Your task to perform on an android device: refresh tabs in the chrome app Image 0: 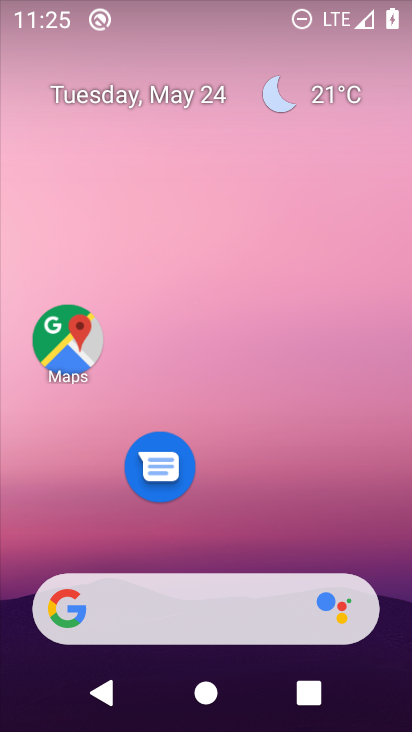
Step 0: drag from (242, 525) to (316, 166)
Your task to perform on an android device: refresh tabs in the chrome app Image 1: 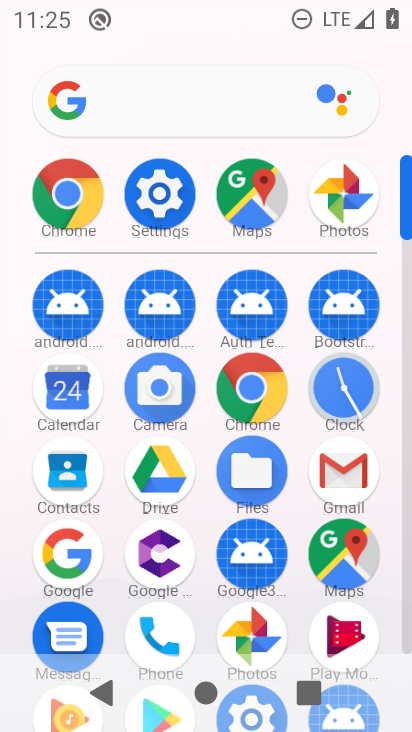
Step 1: click (248, 392)
Your task to perform on an android device: refresh tabs in the chrome app Image 2: 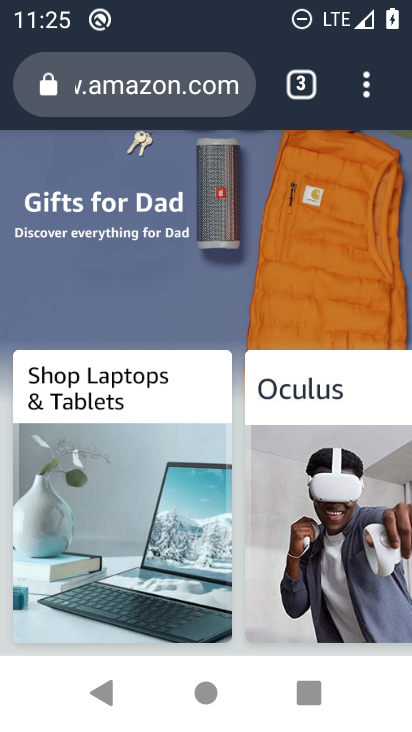
Step 2: drag from (199, 612) to (277, 275)
Your task to perform on an android device: refresh tabs in the chrome app Image 3: 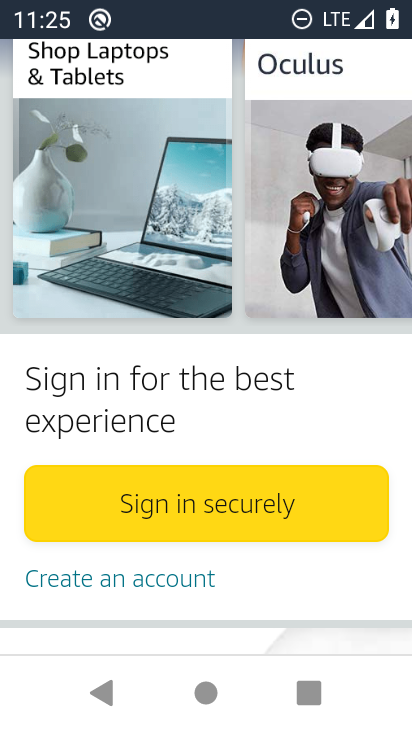
Step 3: drag from (362, 107) to (373, 579)
Your task to perform on an android device: refresh tabs in the chrome app Image 4: 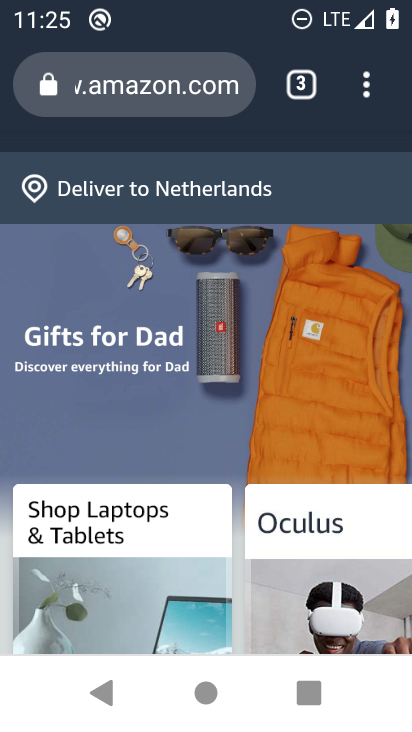
Step 4: click (366, 107)
Your task to perform on an android device: refresh tabs in the chrome app Image 5: 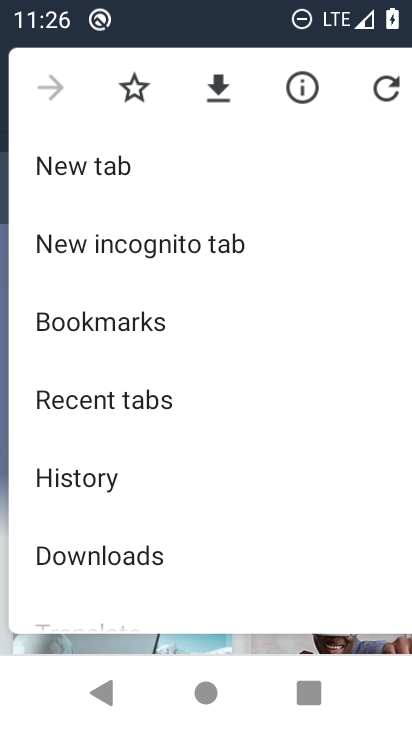
Step 5: drag from (110, 570) to (274, 83)
Your task to perform on an android device: refresh tabs in the chrome app Image 6: 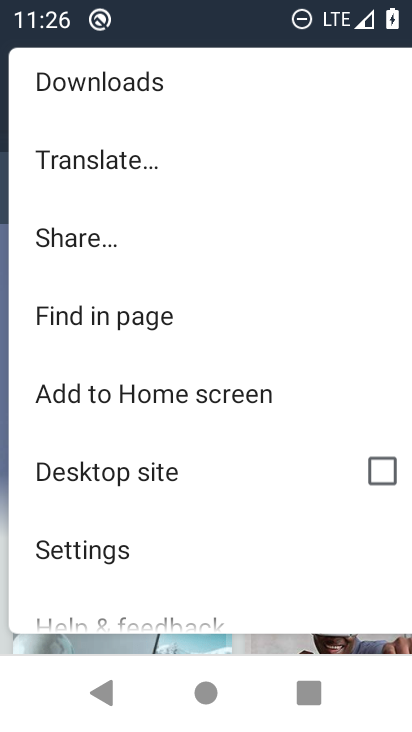
Step 6: click (96, 537)
Your task to perform on an android device: refresh tabs in the chrome app Image 7: 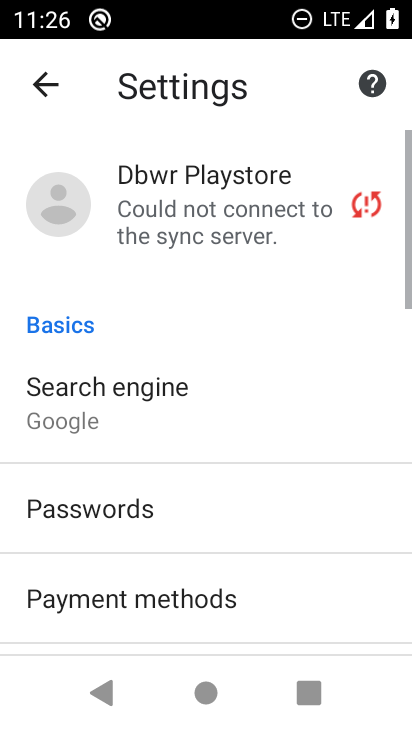
Step 7: drag from (248, 595) to (312, 138)
Your task to perform on an android device: refresh tabs in the chrome app Image 8: 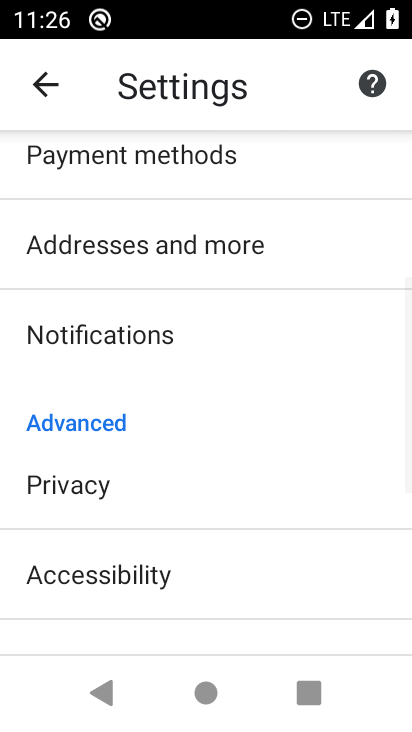
Step 8: drag from (313, 137) to (263, 495)
Your task to perform on an android device: refresh tabs in the chrome app Image 9: 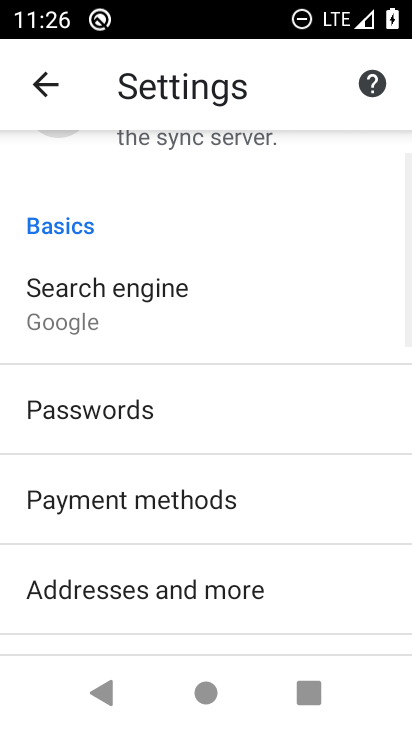
Step 9: click (46, 98)
Your task to perform on an android device: refresh tabs in the chrome app Image 10: 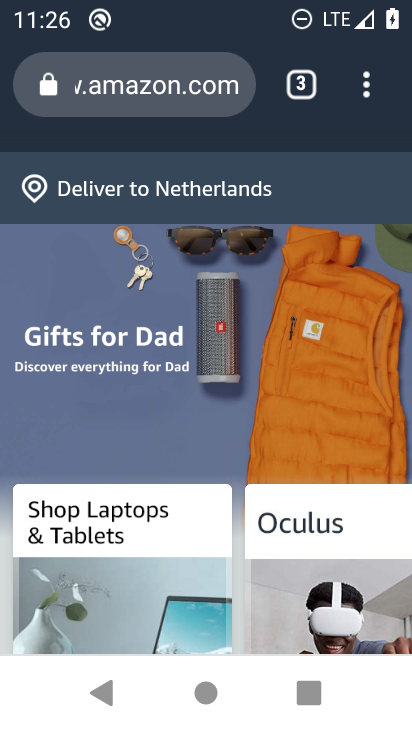
Step 10: click (367, 73)
Your task to perform on an android device: refresh tabs in the chrome app Image 11: 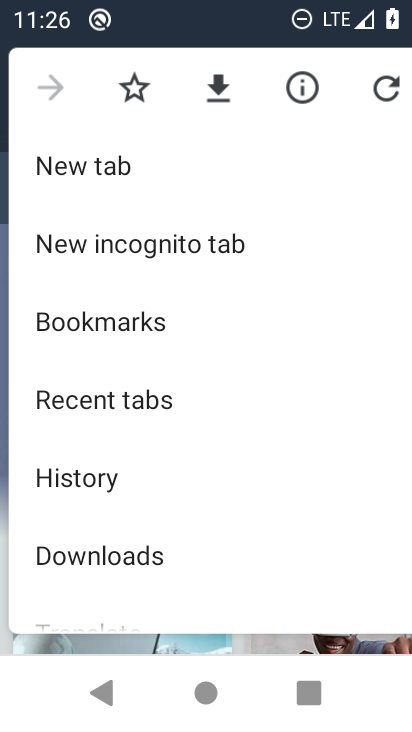
Step 11: click (376, 96)
Your task to perform on an android device: refresh tabs in the chrome app Image 12: 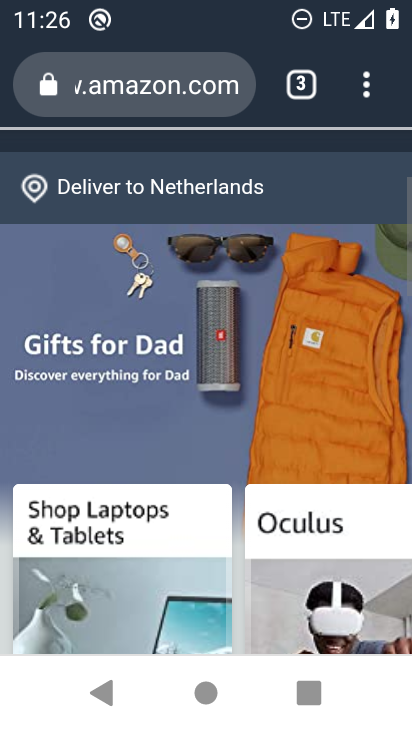
Step 12: task complete